Your task to perform on an android device: change your default location settings in chrome Image 0: 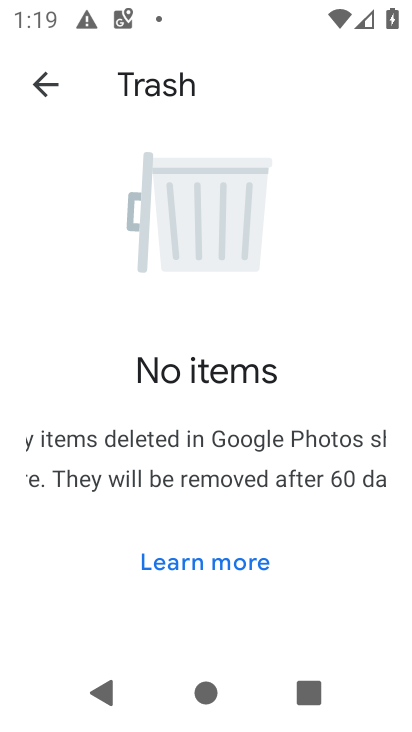
Step 0: press home button
Your task to perform on an android device: change your default location settings in chrome Image 1: 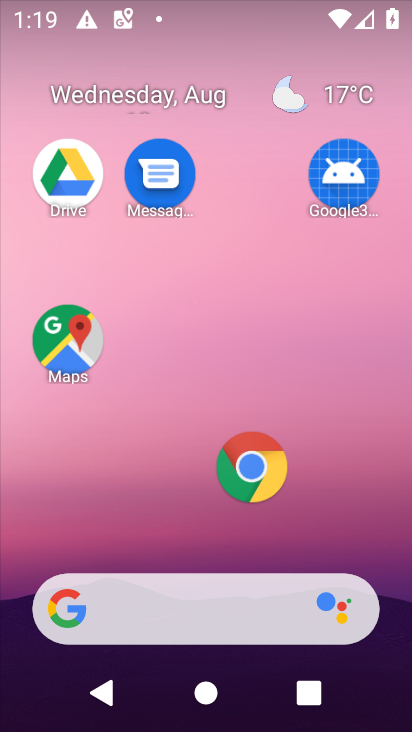
Step 1: click (264, 462)
Your task to perform on an android device: change your default location settings in chrome Image 2: 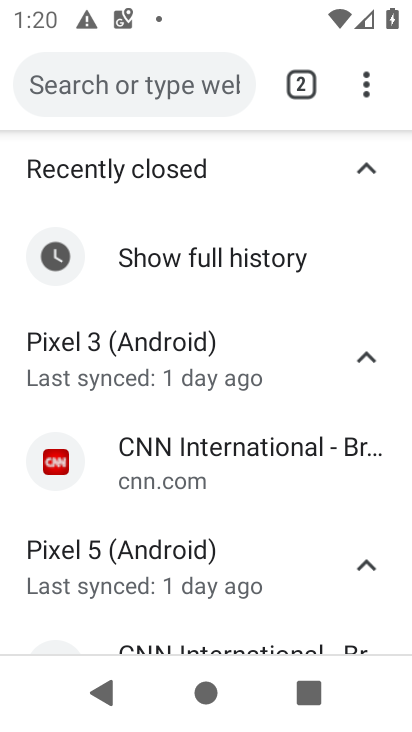
Step 2: click (379, 97)
Your task to perform on an android device: change your default location settings in chrome Image 3: 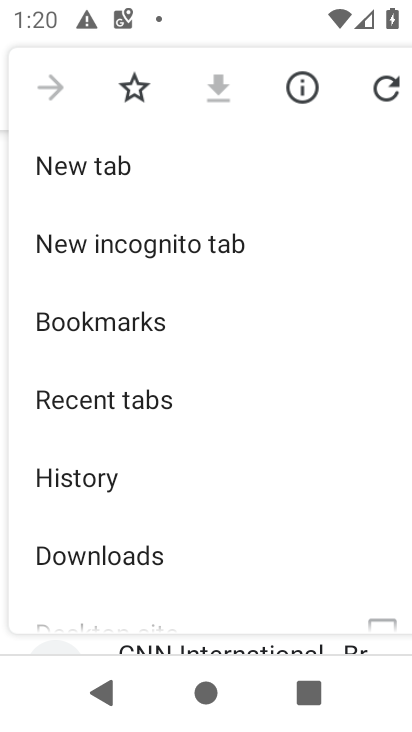
Step 3: drag from (237, 473) to (223, 208)
Your task to perform on an android device: change your default location settings in chrome Image 4: 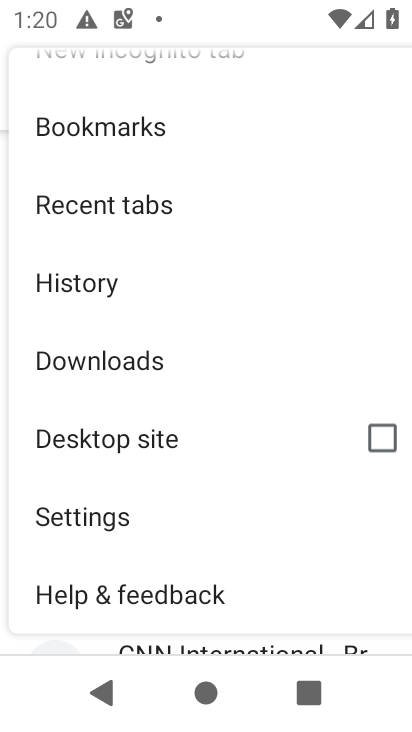
Step 4: drag from (177, 609) to (200, 144)
Your task to perform on an android device: change your default location settings in chrome Image 5: 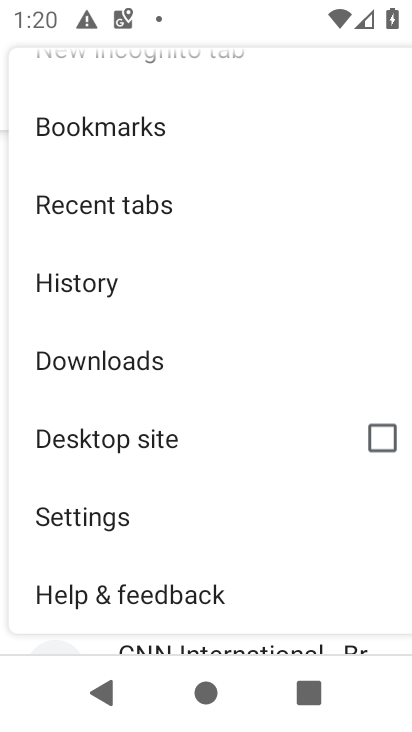
Step 5: click (219, 515)
Your task to perform on an android device: change your default location settings in chrome Image 6: 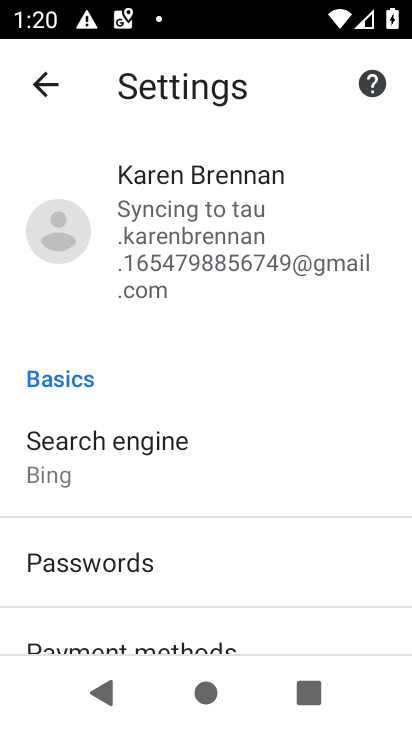
Step 6: drag from (194, 639) to (219, 145)
Your task to perform on an android device: change your default location settings in chrome Image 7: 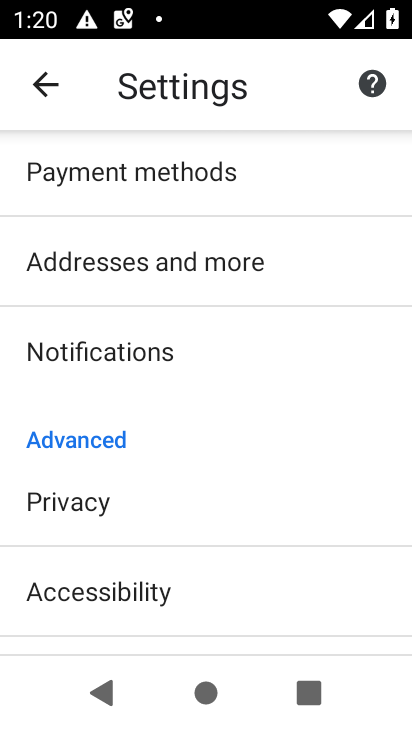
Step 7: drag from (136, 613) to (220, 87)
Your task to perform on an android device: change your default location settings in chrome Image 8: 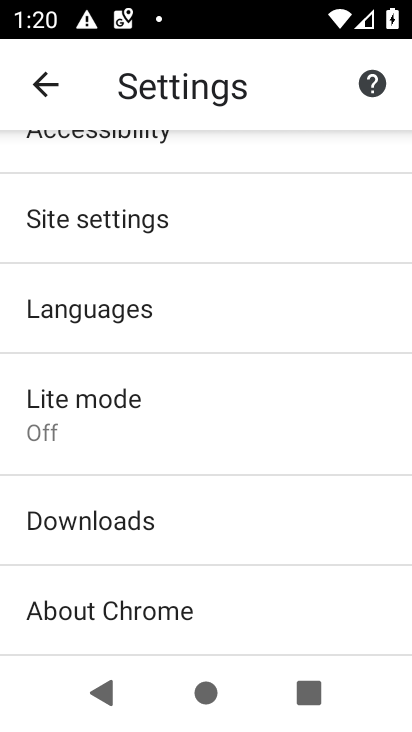
Step 8: click (198, 223)
Your task to perform on an android device: change your default location settings in chrome Image 9: 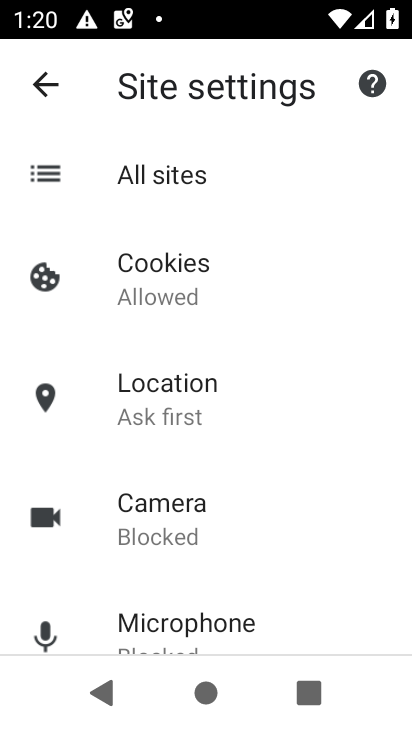
Step 9: click (203, 402)
Your task to perform on an android device: change your default location settings in chrome Image 10: 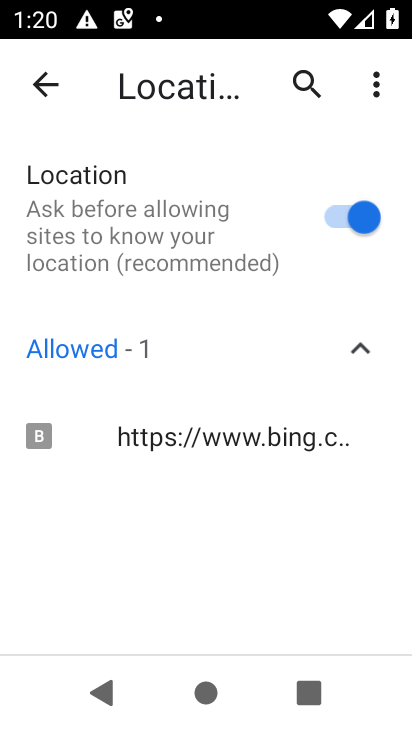
Step 10: click (333, 215)
Your task to perform on an android device: change your default location settings in chrome Image 11: 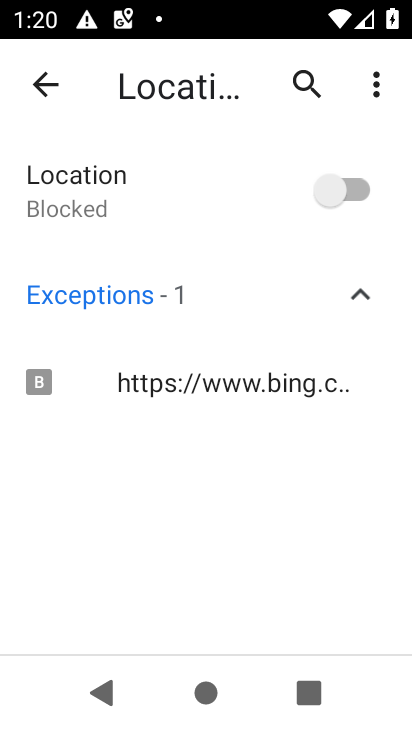
Step 11: task complete